Your task to perform on an android device: manage bookmarks in the chrome app Image 0: 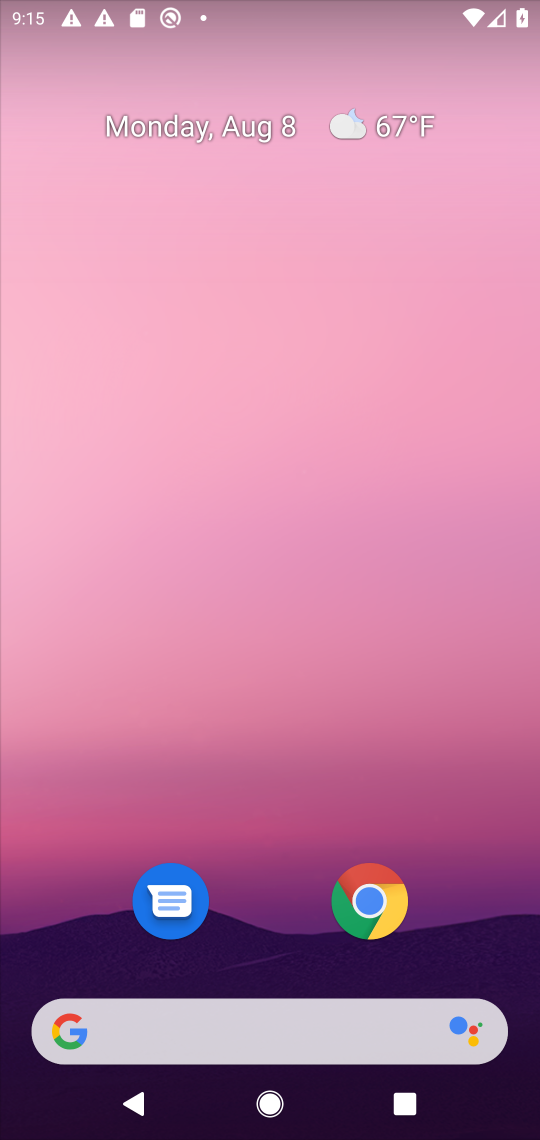
Step 0: click (372, 907)
Your task to perform on an android device: manage bookmarks in the chrome app Image 1: 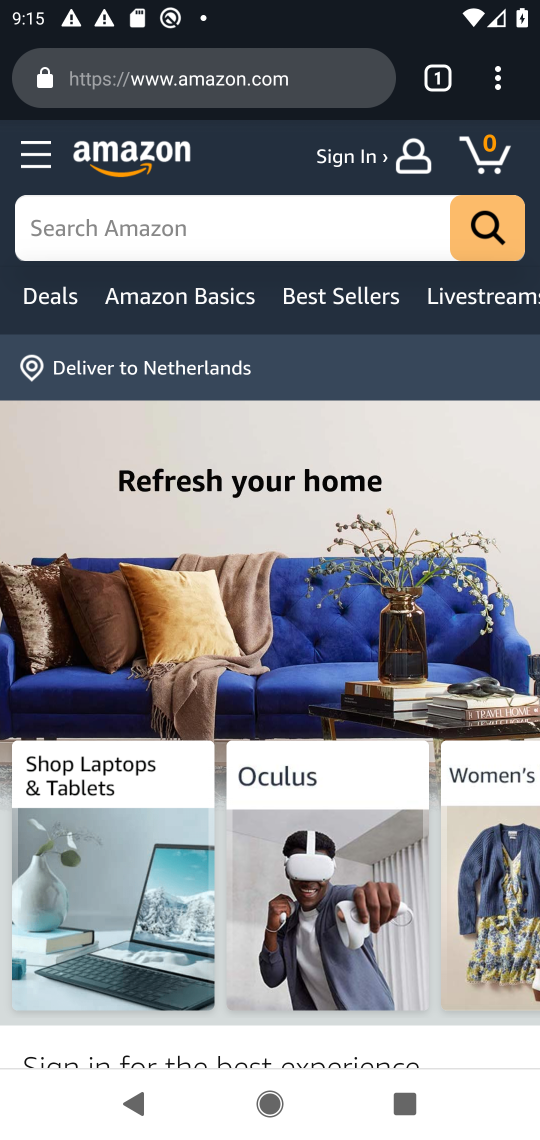
Step 1: click (494, 84)
Your task to perform on an android device: manage bookmarks in the chrome app Image 2: 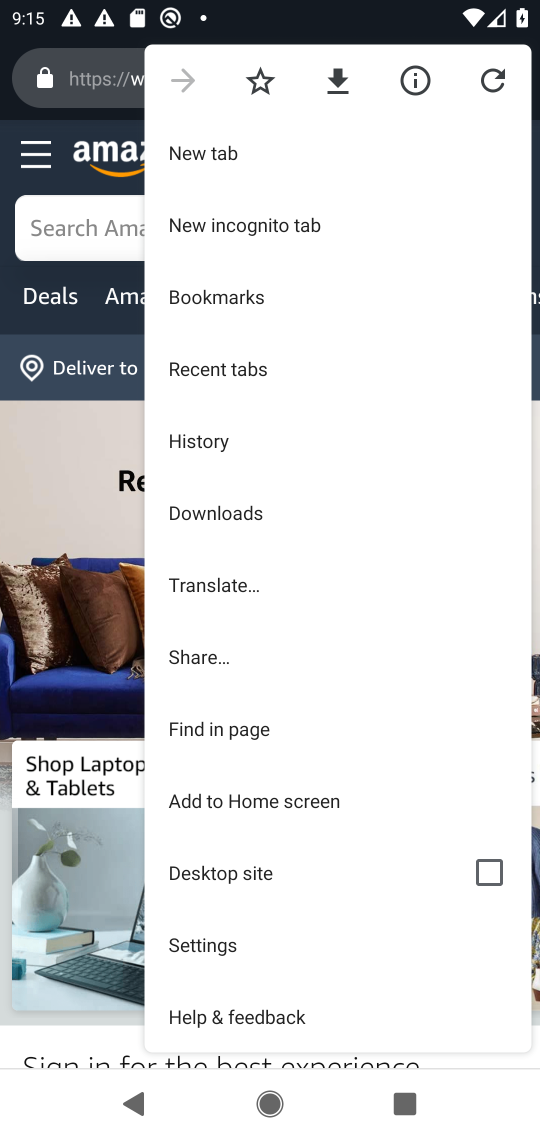
Step 2: click (231, 298)
Your task to perform on an android device: manage bookmarks in the chrome app Image 3: 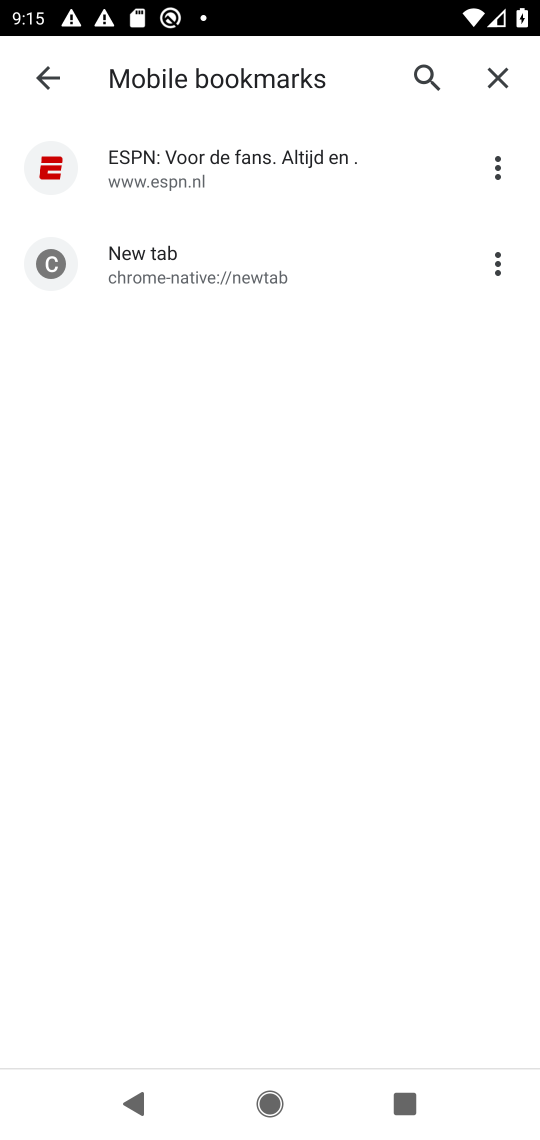
Step 3: click (495, 262)
Your task to perform on an android device: manage bookmarks in the chrome app Image 4: 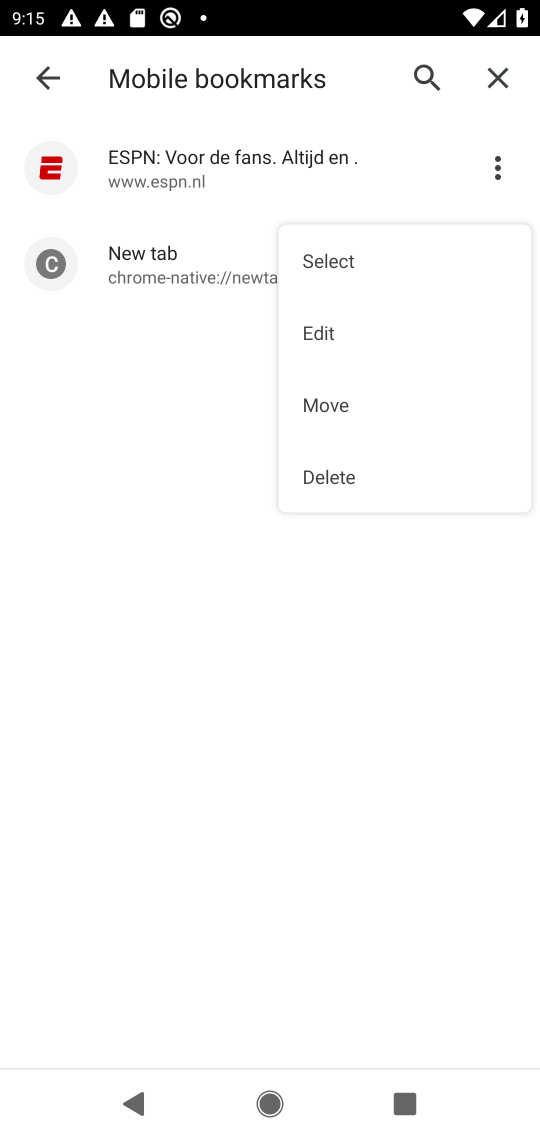
Step 4: click (374, 477)
Your task to perform on an android device: manage bookmarks in the chrome app Image 5: 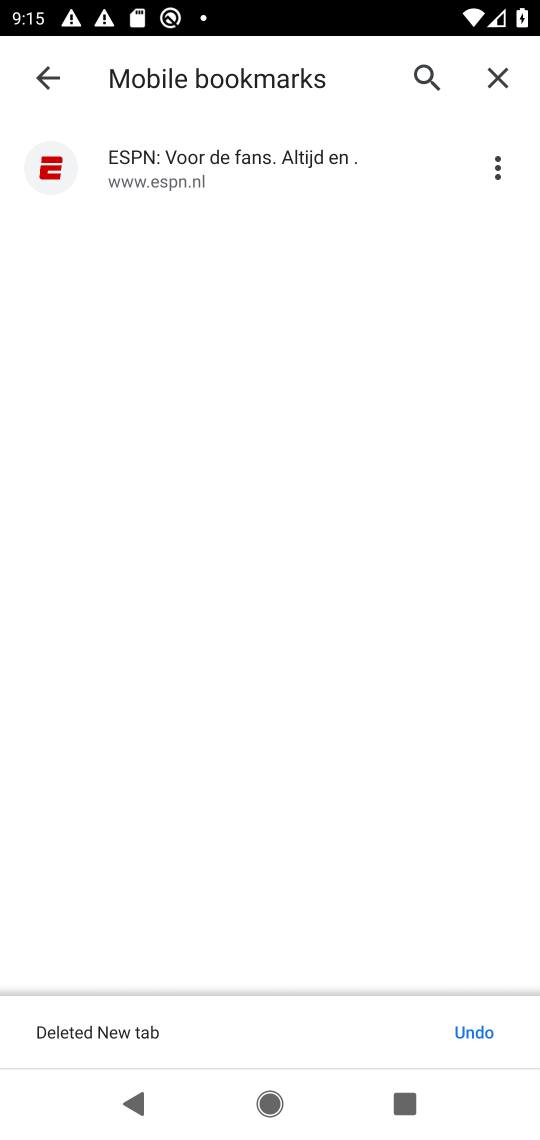
Step 5: task complete